Your task to perform on an android device: turn on location history Image 0: 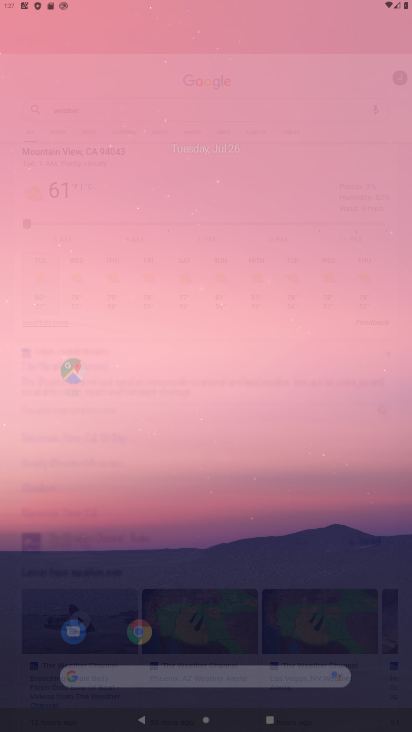
Step 0: press home button
Your task to perform on an android device: turn on location history Image 1: 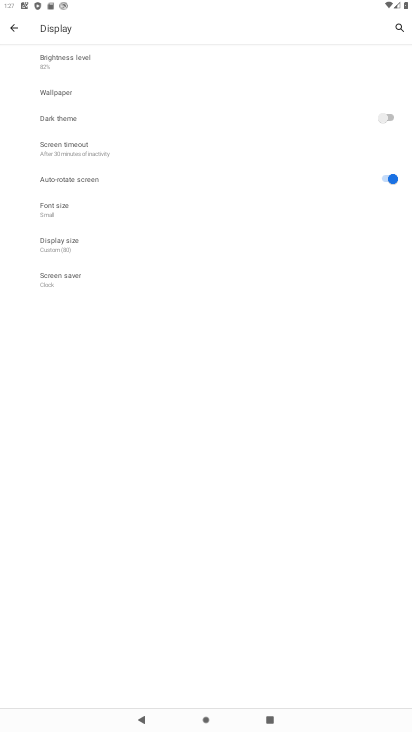
Step 1: press home button
Your task to perform on an android device: turn on location history Image 2: 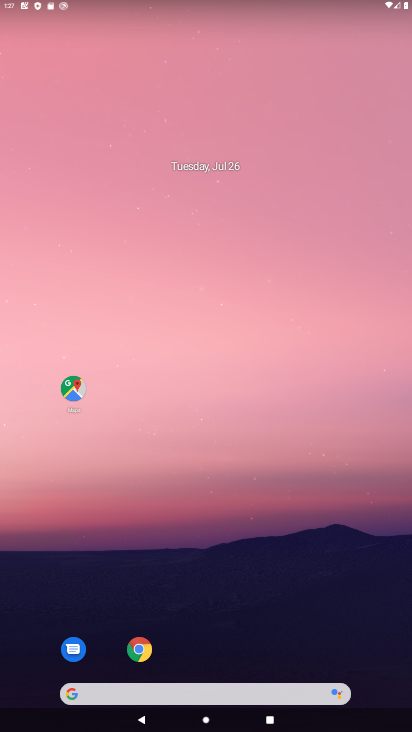
Step 2: drag from (245, 648) to (288, 22)
Your task to perform on an android device: turn on location history Image 3: 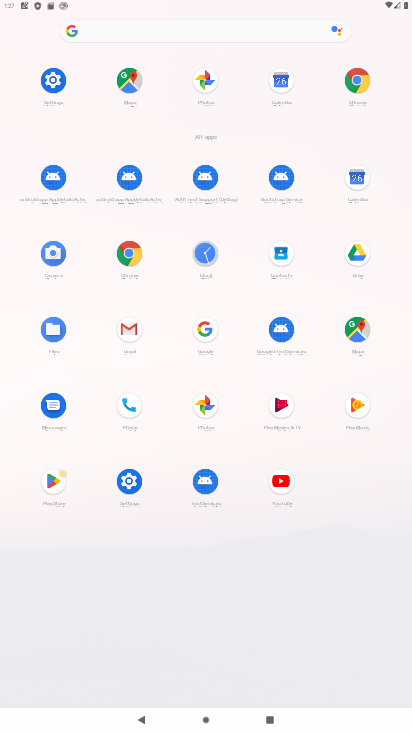
Step 3: click (125, 476)
Your task to perform on an android device: turn on location history Image 4: 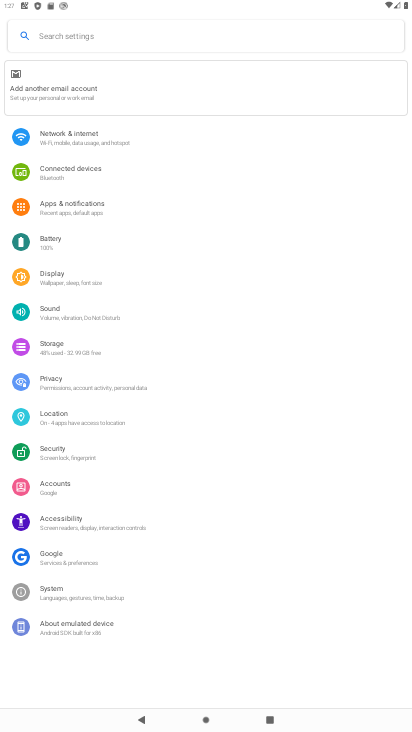
Step 4: click (83, 421)
Your task to perform on an android device: turn on location history Image 5: 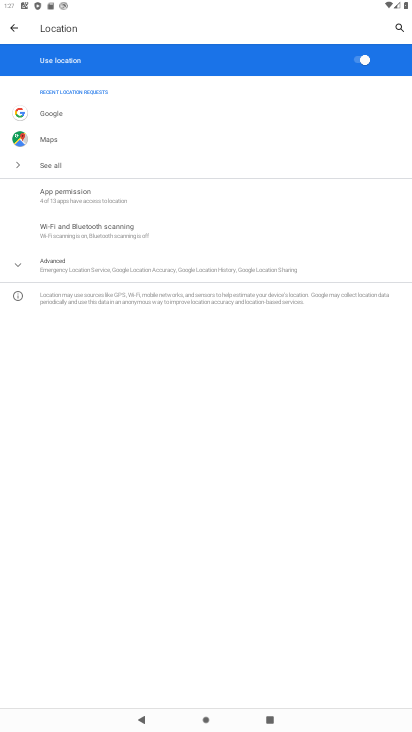
Step 5: click (17, 265)
Your task to perform on an android device: turn on location history Image 6: 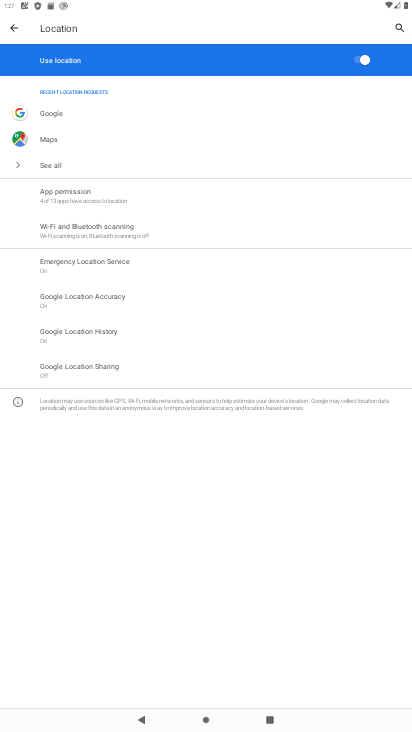
Step 6: click (123, 331)
Your task to perform on an android device: turn on location history Image 7: 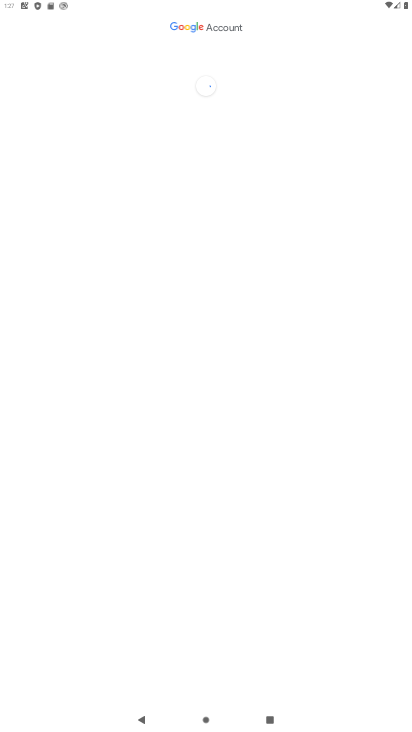
Step 7: task complete